Your task to perform on an android device: toggle show notifications on the lock screen Image 0: 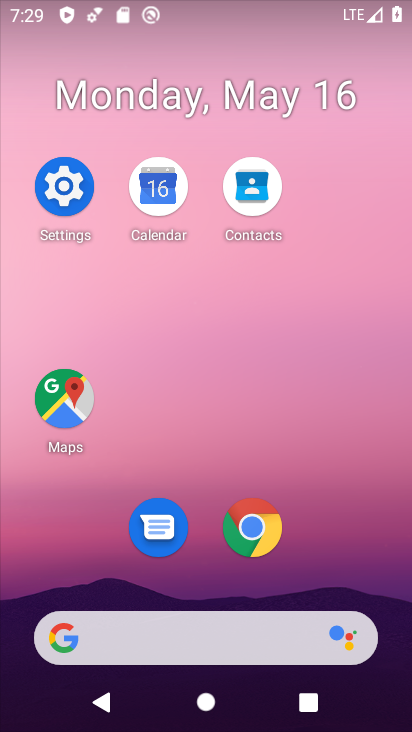
Step 0: click (82, 184)
Your task to perform on an android device: toggle show notifications on the lock screen Image 1: 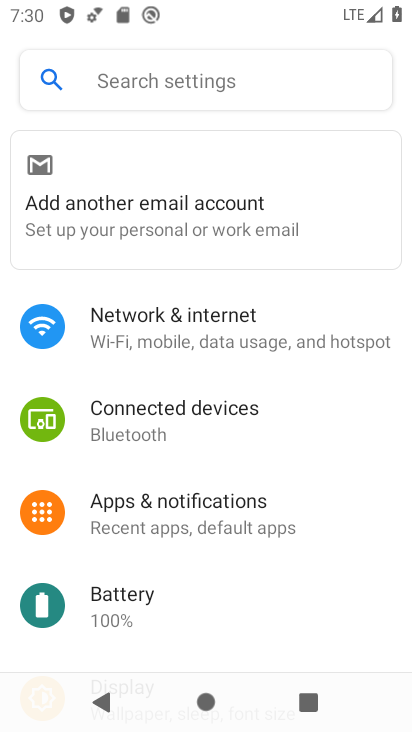
Step 1: click (211, 523)
Your task to perform on an android device: toggle show notifications on the lock screen Image 2: 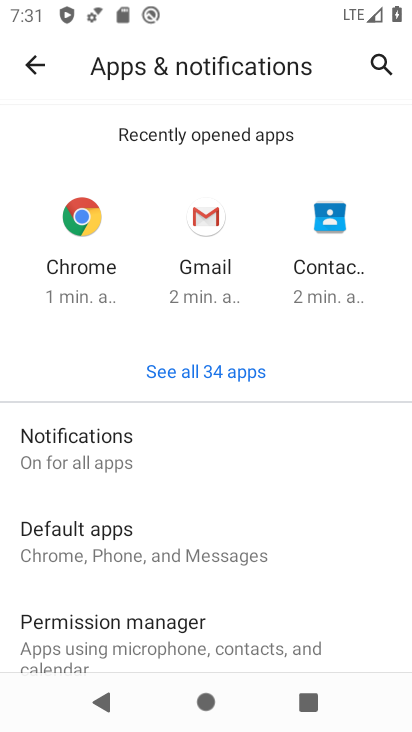
Step 2: drag from (247, 651) to (206, 158)
Your task to perform on an android device: toggle show notifications on the lock screen Image 3: 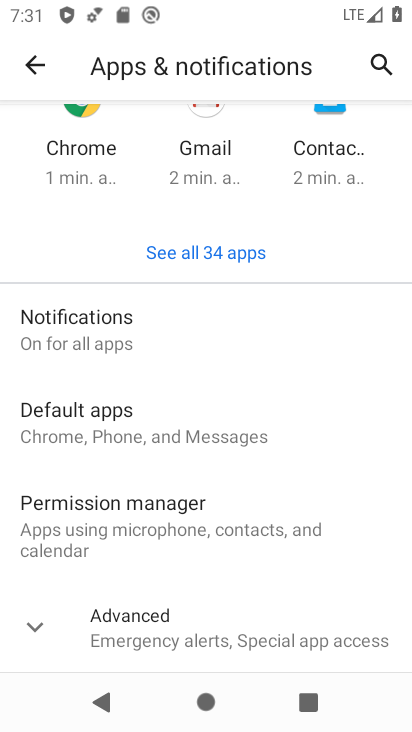
Step 3: click (278, 641)
Your task to perform on an android device: toggle show notifications on the lock screen Image 4: 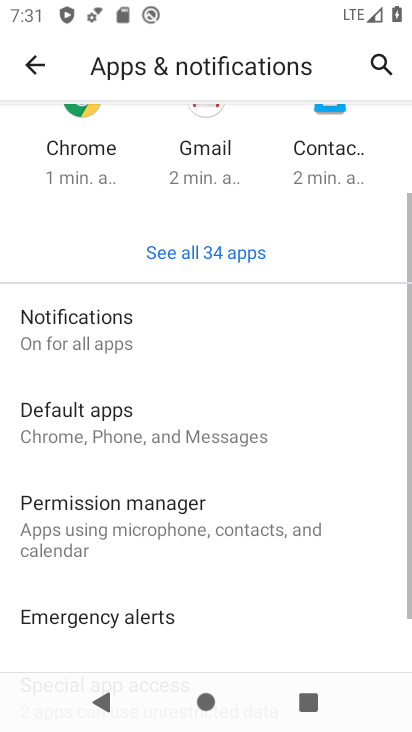
Step 4: drag from (278, 641) to (239, 292)
Your task to perform on an android device: toggle show notifications on the lock screen Image 5: 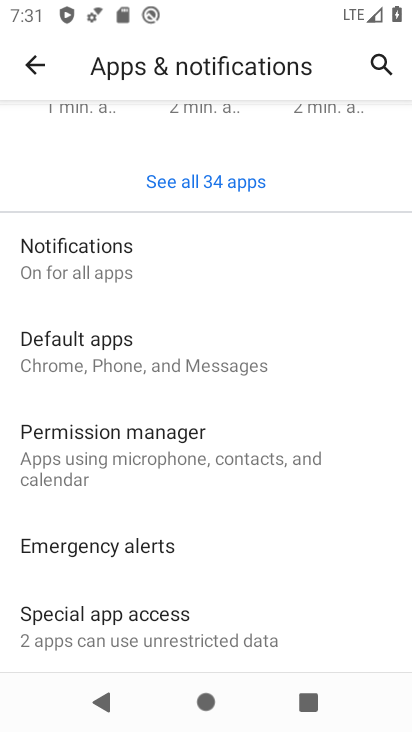
Step 5: click (208, 269)
Your task to perform on an android device: toggle show notifications on the lock screen Image 6: 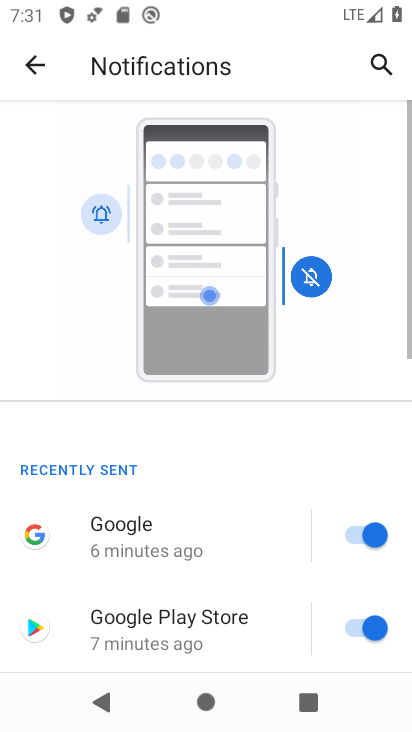
Step 6: drag from (259, 672) to (225, 161)
Your task to perform on an android device: toggle show notifications on the lock screen Image 7: 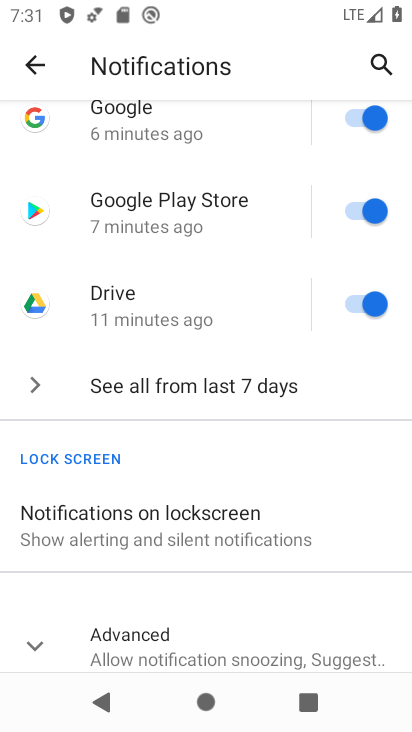
Step 7: click (252, 525)
Your task to perform on an android device: toggle show notifications on the lock screen Image 8: 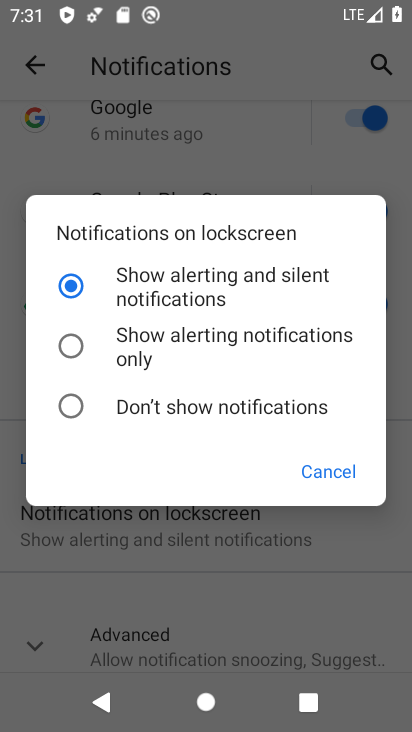
Step 8: click (106, 328)
Your task to perform on an android device: toggle show notifications on the lock screen Image 9: 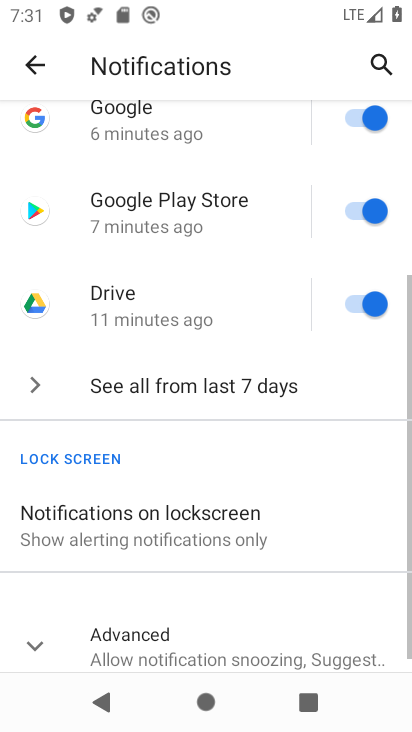
Step 9: task complete